Your task to perform on an android device: Is it going to rain this weekend? Image 0: 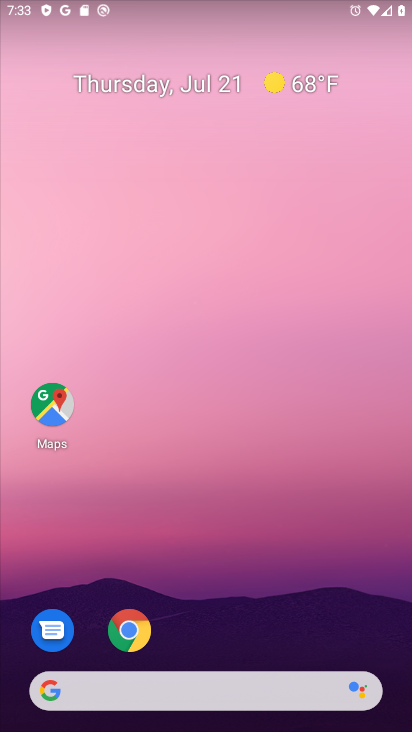
Step 0: drag from (279, 510) to (289, 16)
Your task to perform on an android device: Is it going to rain this weekend? Image 1: 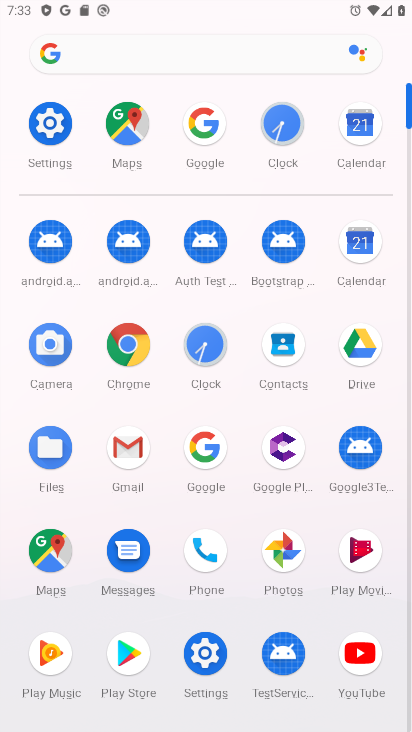
Step 1: click (197, 446)
Your task to perform on an android device: Is it going to rain this weekend? Image 2: 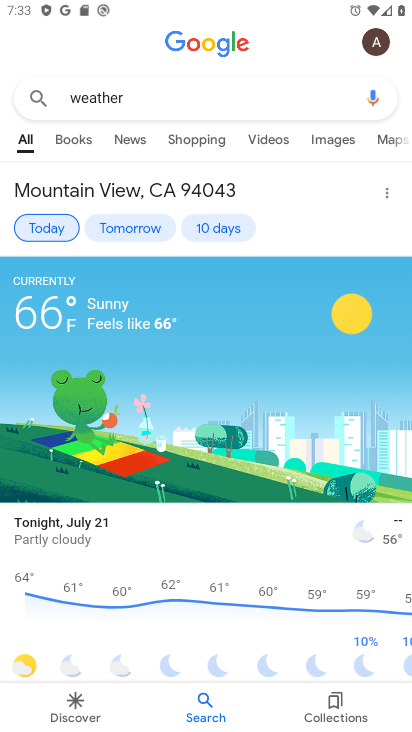
Step 2: click (212, 228)
Your task to perform on an android device: Is it going to rain this weekend? Image 3: 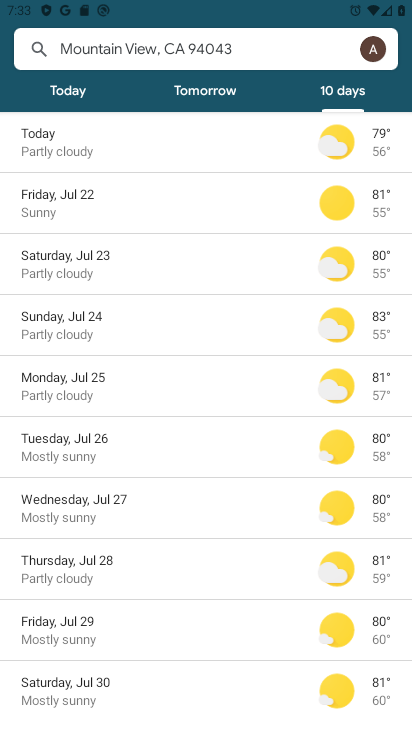
Step 3: task complete